Your task to perform on an android device: Open internet settings Image 0: 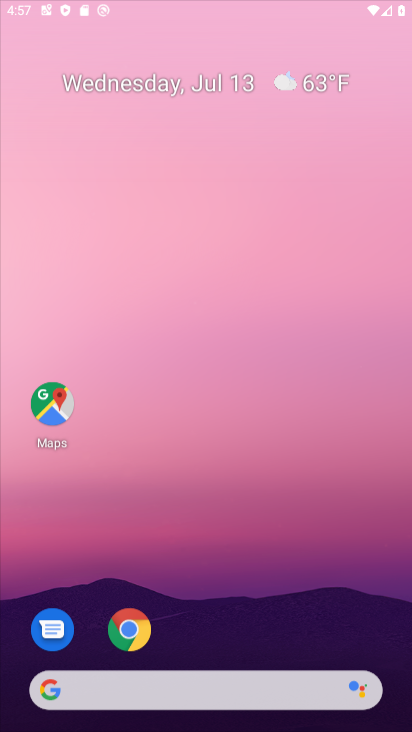
Step 0: press home button
Your task to perform on an android device: Open internet settings Image 1: 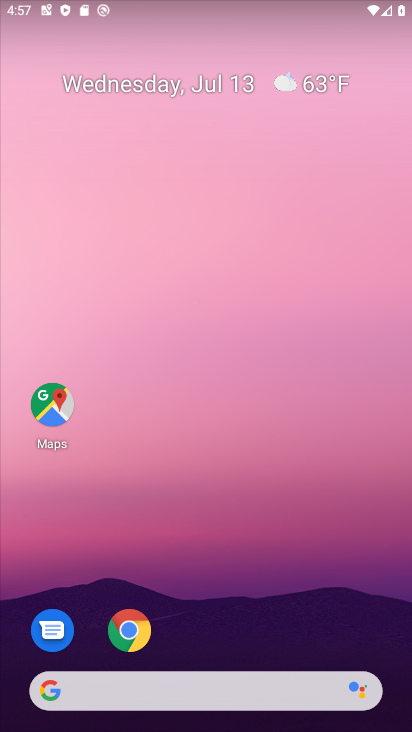
Step 1: drag from (263, 661) to (285, 300)
Your task to perform on an android device: Open internet settings Image 2: 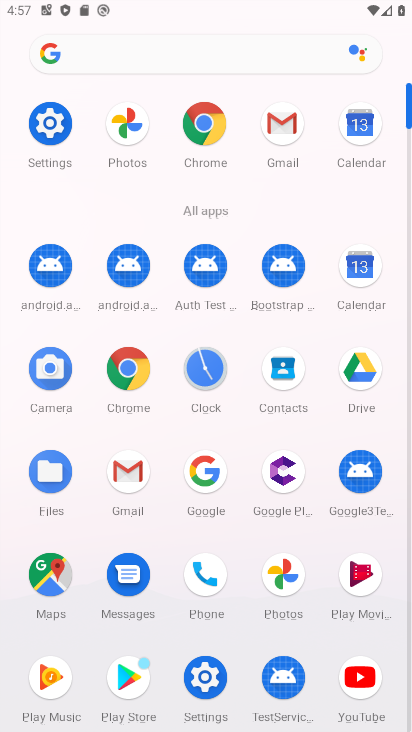
Step 2: click (45, 115)
Your task to perform on an android device: Open internet settings Image 3: 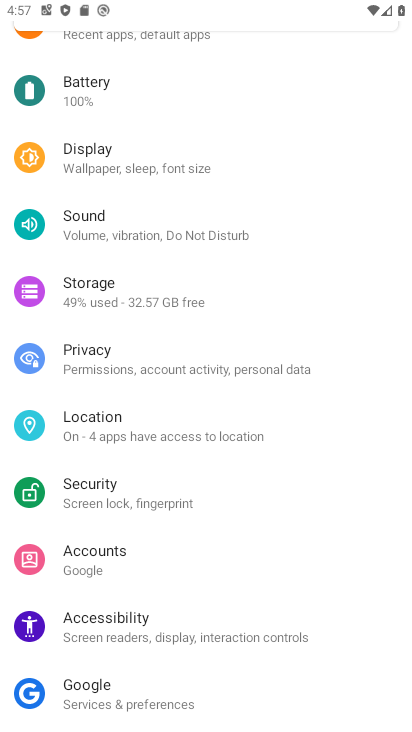
Step 3: drag from (231, 102) to (223, 694)
Your task to perform on an android device: Open internet settings Image 4: 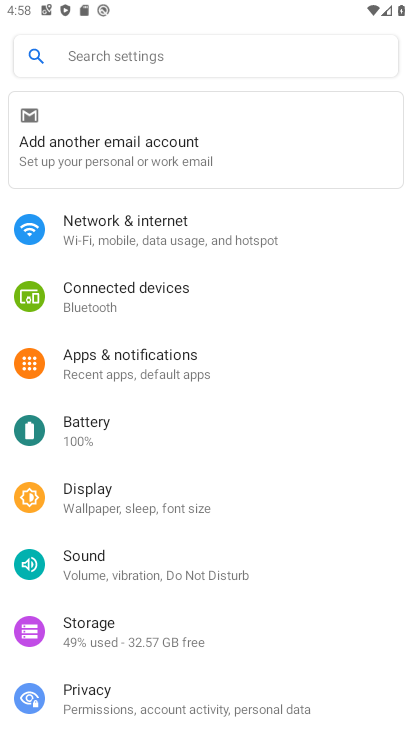
Step 4: click (159, 229)
Your task to perform on an android device: Open internet settings Image 5: 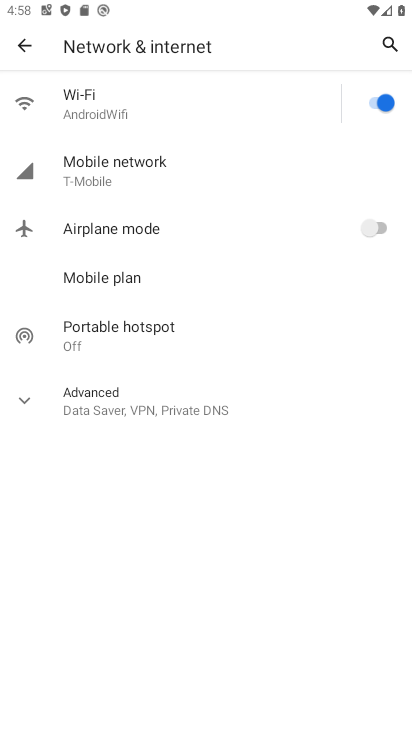
Step 5: task complete